Your task to perform on an android device: Search for pizza restaurants on Maps Image 0: 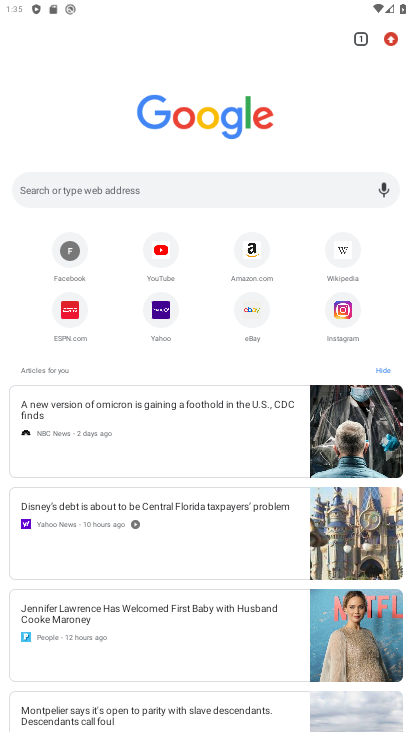
Step 0: press home button
Your task to perform on an android device: Search for pizza restaurants on Maps Image 1: 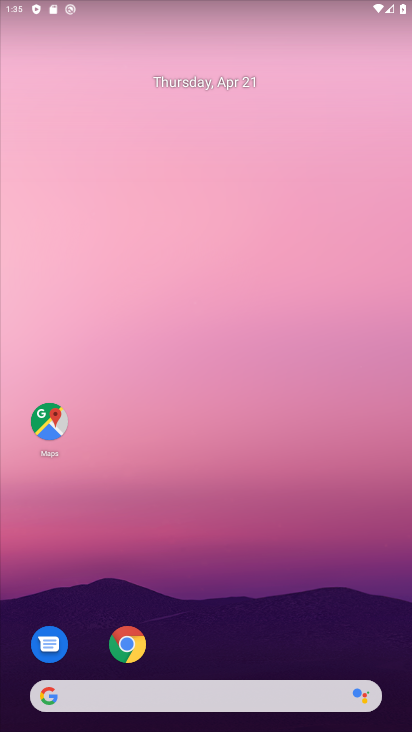
Step 1: click (50, 423)
Your task to perform on an android device: Search for pizza restaurants on Maps Image 2: 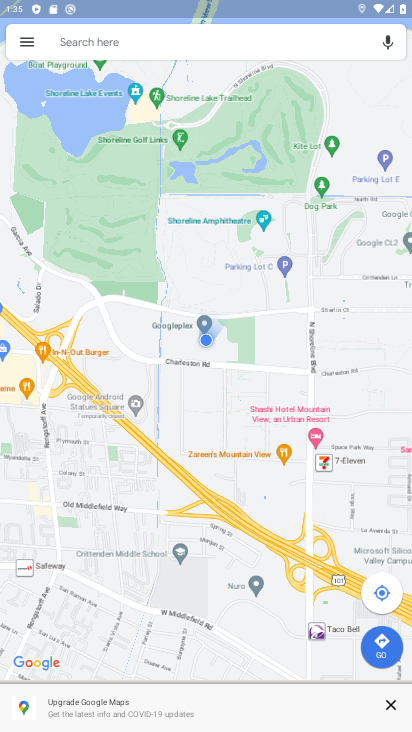
Step 2: click (170, 42)
Your task to perform on an android device: Search for pizza restaurants on Maps Image 3: 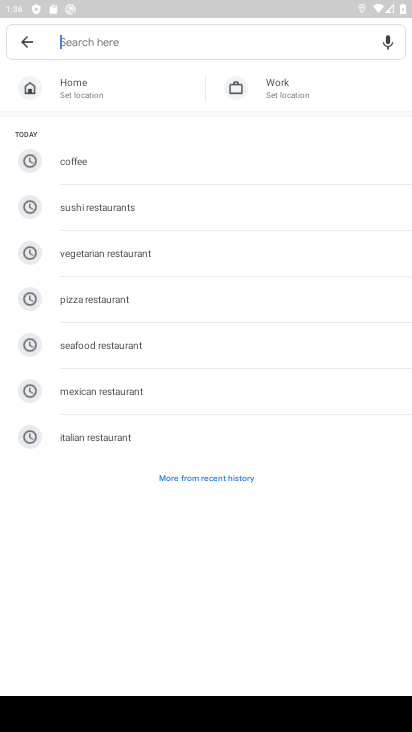
Step 3: click (217, 301)
Your task to perform on an android device: Search for pizza restaurants on Maps Image 4: 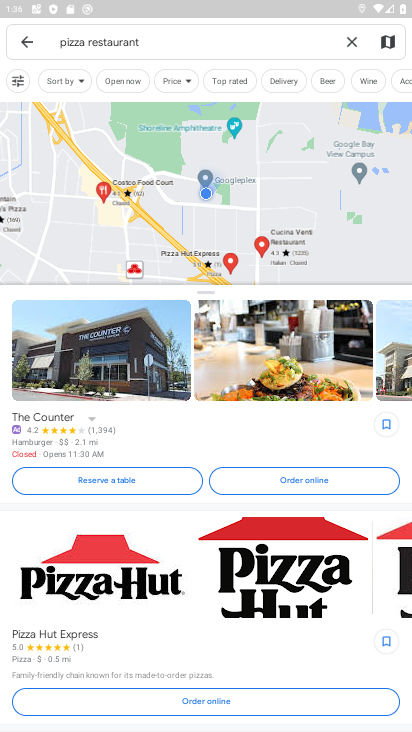
Step 4: task complete